Your task to perform on an android device: Open Chrome and go to settings Image 0: 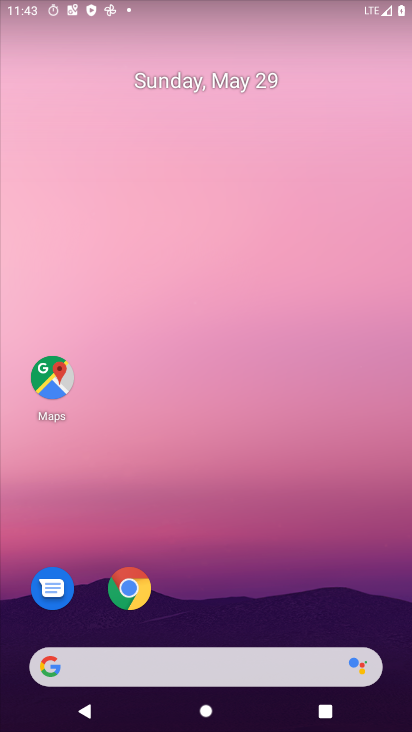
Step 0: drag from (270, 601) to (244, 234)
Your task to perform on an android device: Open Chrome and go to settings Image 1: 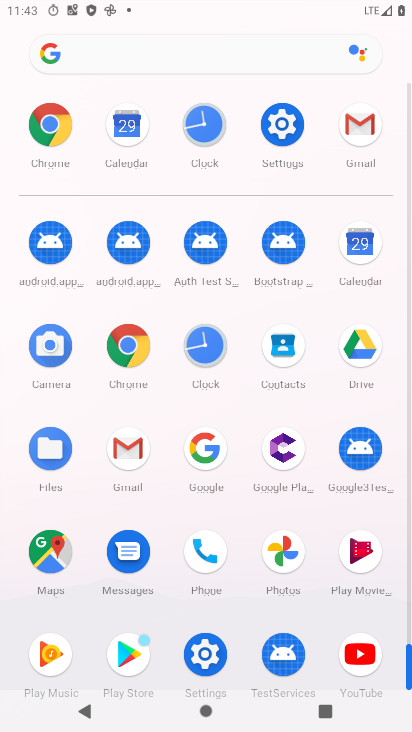
Step 1: click (213, 654)
Your task to perform on an android device: Open Chrome and go to settings Image 2: 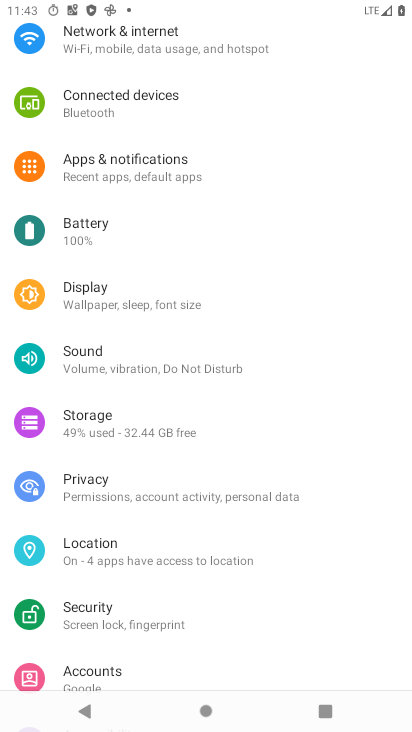
Step 2: press home button
Your task to perform on an android device: Open Chrome and go to settings Image 3: 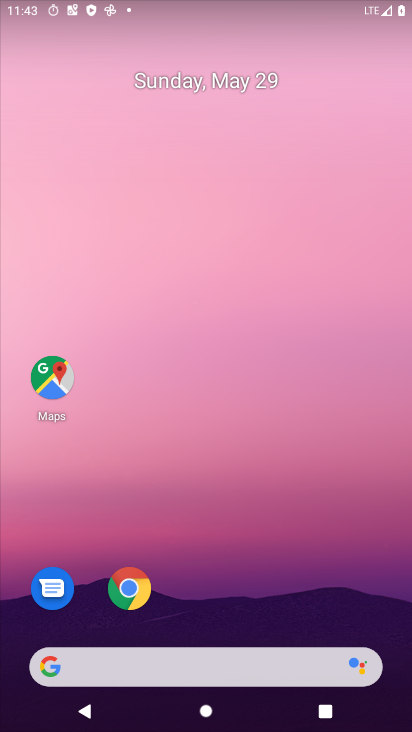
Step 3: drag from (242, 534) to (302, 101)
Your task to perform on an android device: Open Chrome and go to settings Image 4: 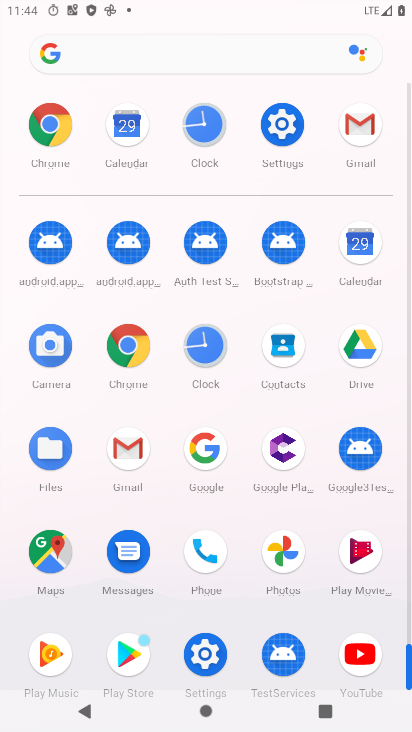
Step 4: click (140, 361)
Your task to perform on an android device: Open Chrome and go to settings Image 5: 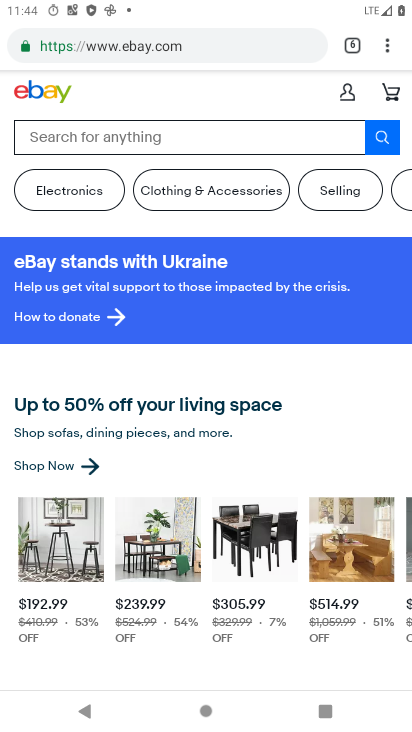
Step 5: click (387, 47)
Your task to perform on an android device: Open Chrome and go to settings Image 6: 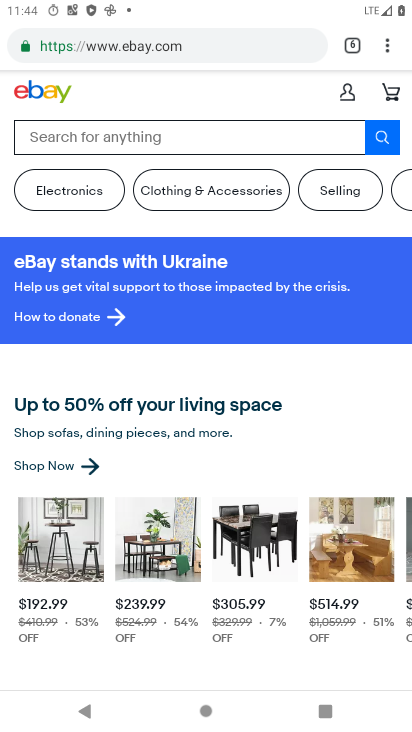
Step 6: click (385, 48)
Your task to perform on an android device: Open Chrome and go to settings Image 7: 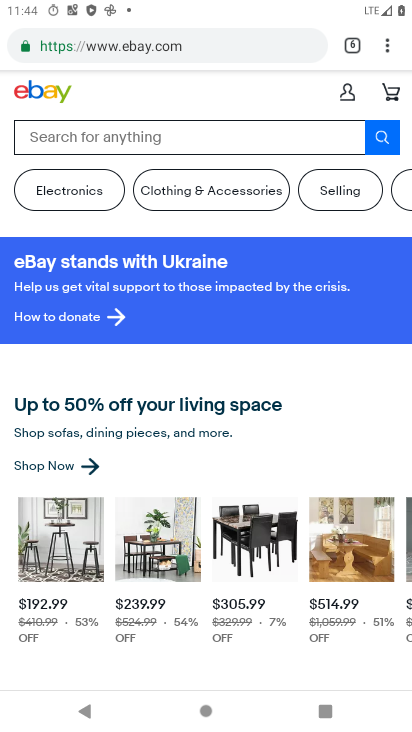
Step 7: click (391, 51)
Your task to perform on an android device: Open Chrome and go to settings Image 8: 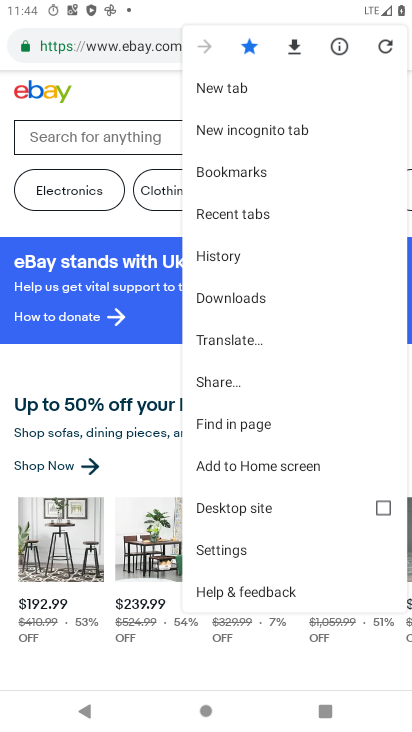
Step 8: click (241, 554)
Your task to perform on an android device: Open Chrome and go to settings Image 9: 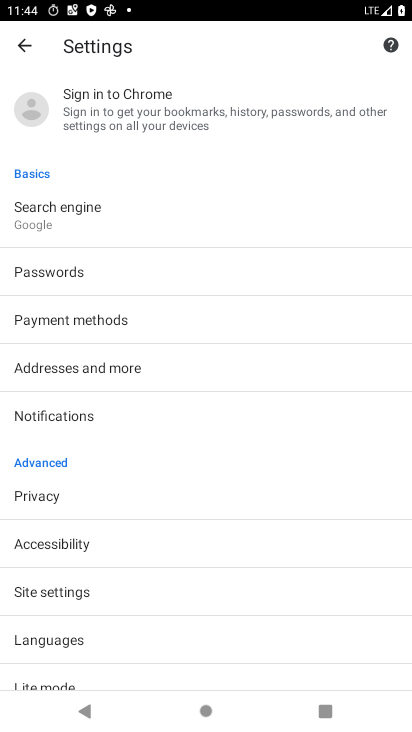
Step 9: task complete